Your task to perform on an android device: Open calendar and show me the third week of next month Image 0: 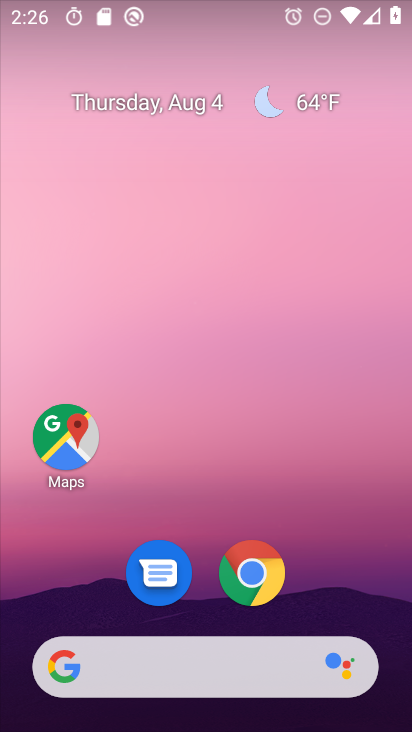
Step 0: drag from (362, 530) to (395, 137)
Your task to perform on an android device: Open calendar and show me the third week of next month Image 1: 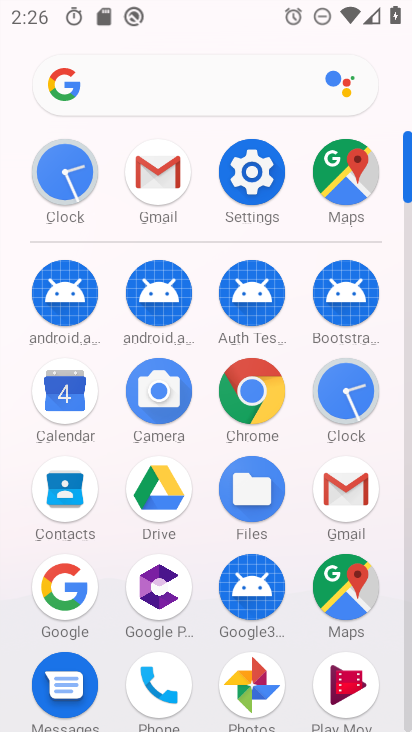
Step 1: click (77, 389)
Your task to perform on an android device: Open calendar and show me the third week of next month Image 2: 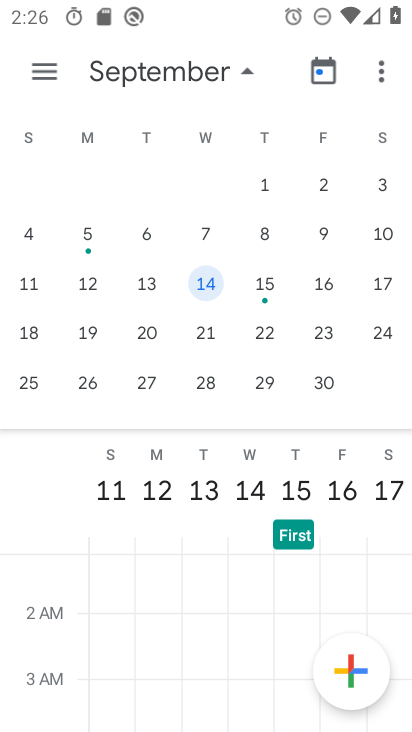
Step 2: click (143, 328)
Your task to perform on an android device: Open calendar and show me the third week of next month Image 3: 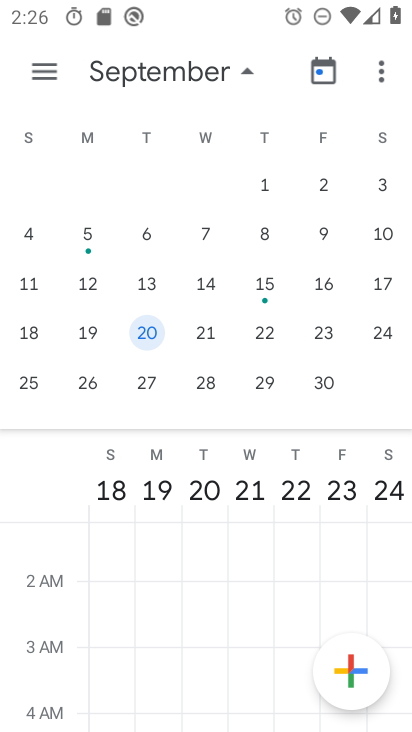
Step 3: task complete